Your task to perform on an android device: Show me productivity apps on the Play Store Image 0: 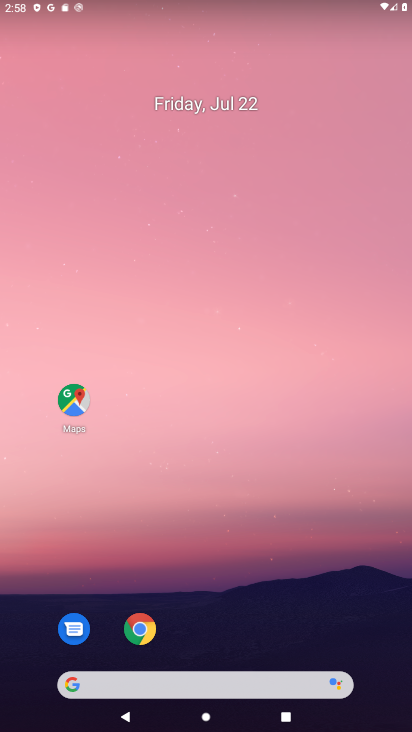
Step 0: drag from (230, 604) to (191, 168)
Your task to perform on an android device: Show me productivity apps on the Play Store Image 1: 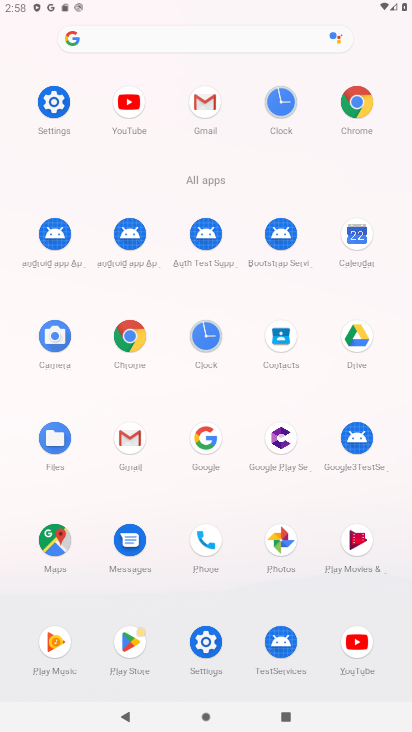
Step 1: click (124, 646)
Your task to perform on an android device: Show me productivity apps on the Play Store Image 2: 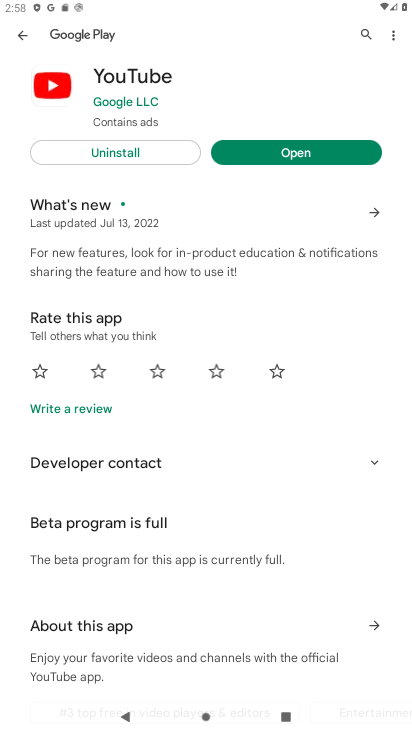
Step 2: click (27, 30)
Your task to perform on an android device: Show me productivity apps on the Play Store Image 3: 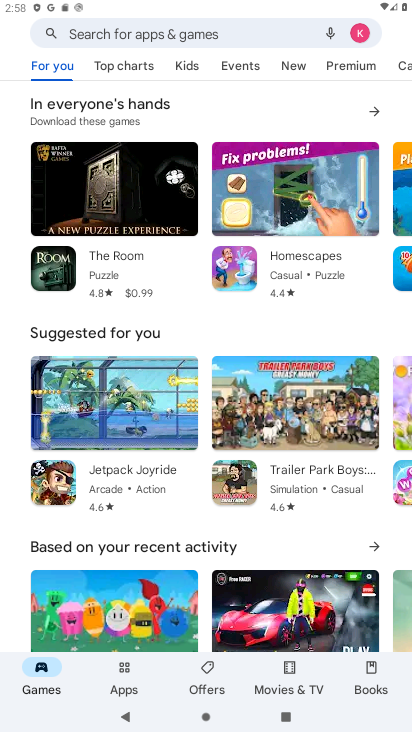
Step 3: click (124, 672)
Your task to perform on an android device: Show me productivity apps on the Play Store Image 4: 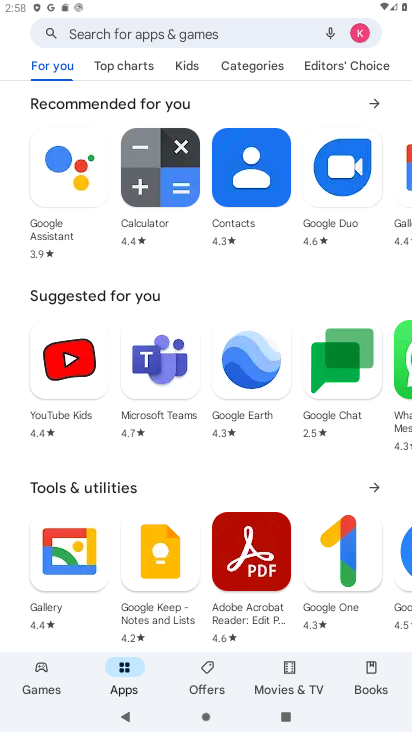
Step 4: task complete